Your task to perform on an android device: Open the phone app and click the voicemail tab. Image 0: 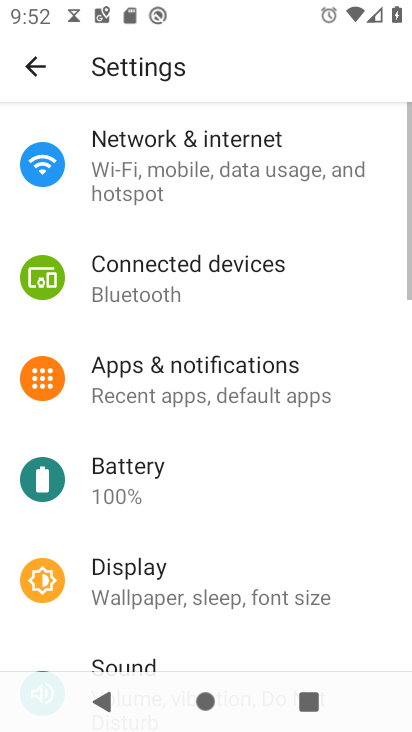
Step 0: press home button
Your task to perform on an android device: Open the phone app and click the voicemail tab. Image 1: 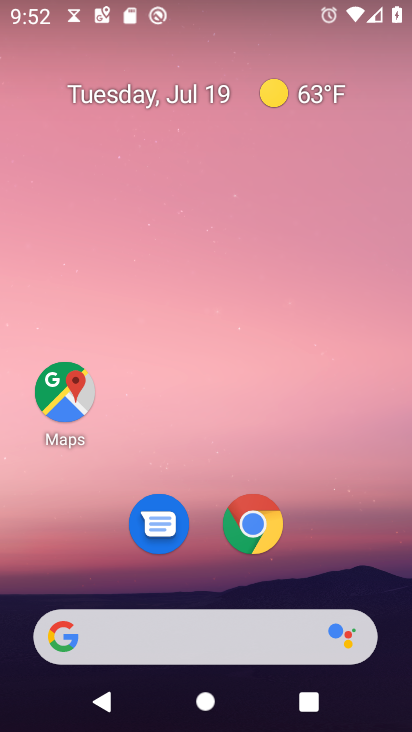
Step 1: drag from (205, 650) to (329, 47)
Your task to perform on an android device: Open the phone app and click the voicemail tab. Image 2: 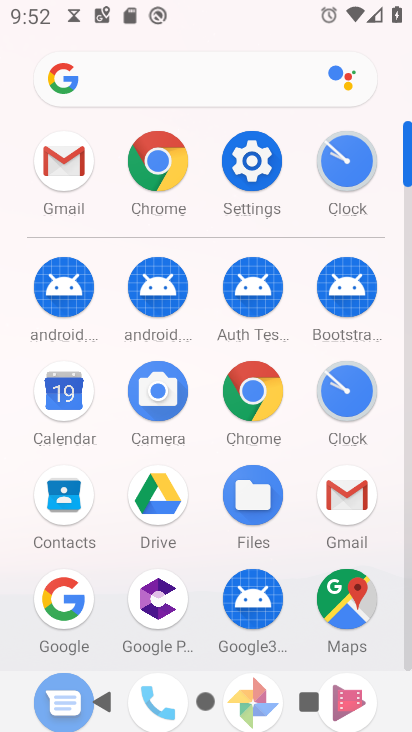
Step 2: drag from (175, 618) to (287, 96)
Your task to perform on an android device: Open the phone app and click the voicemail tab. Image 3: 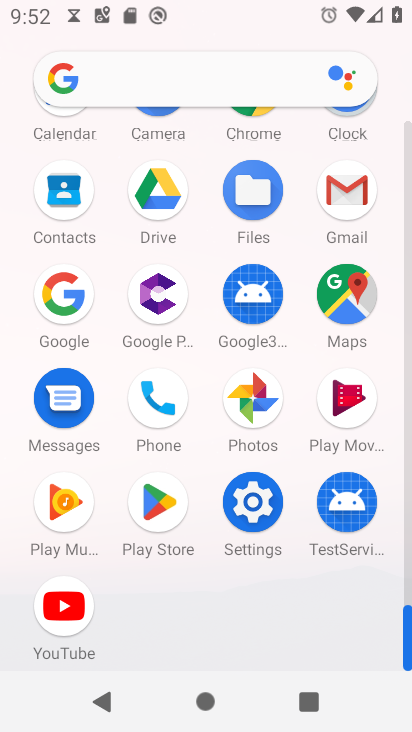
Step 3: click (148, 407)
Your task to perform on an android device: Open the phone app and click the voicemail tab. Image 4: 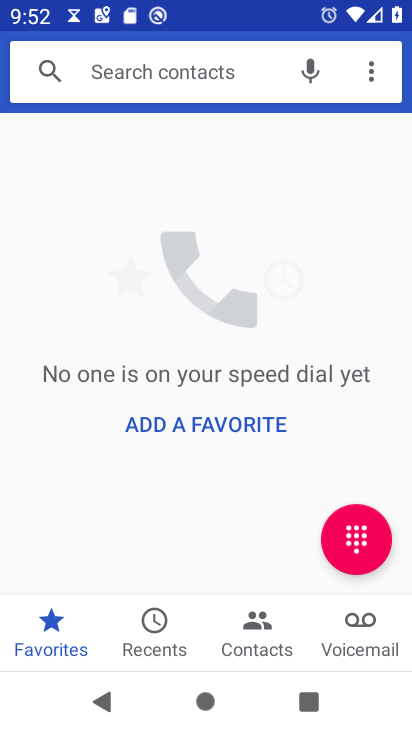
Step 4: click (360, 642)
Your task to perform on an android device: Open the phone app and click the voicemail tab. Image 5: 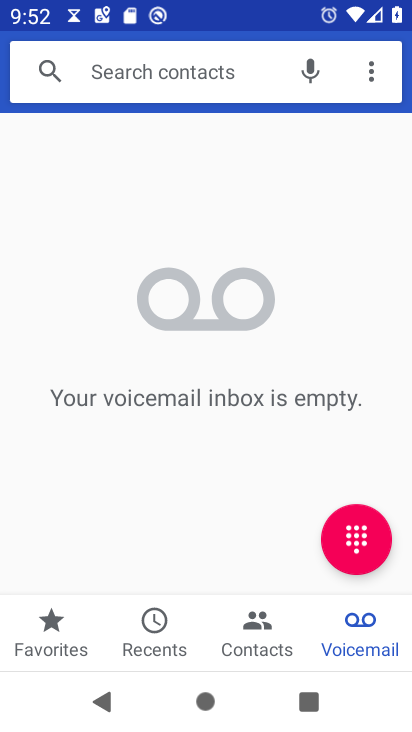
Step 5: task complete